Your task to perform on an android device: Search for Italian restaurants on Maps Image 0: 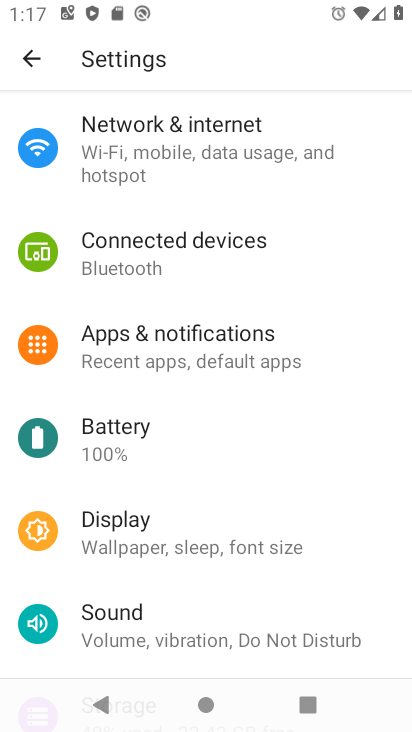
Step 0: press home button
Your task to perform on an android device: Search for Italian restaurants on Maps Image 1: 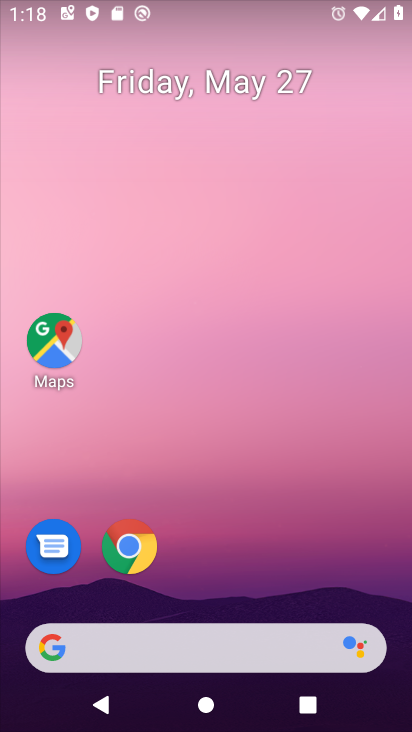
Step 1: drag from (325, 669) to (312, 183)
Your task to perform on an android device: Search for Italian restaurants on Maps Image 2: 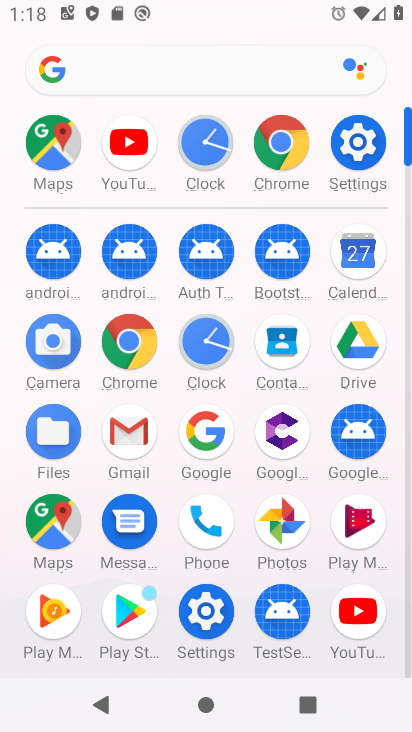
Step 2: click (72, 171)
Your task to perform on an android device: Search for Italian restaurants on Maps Image 3: 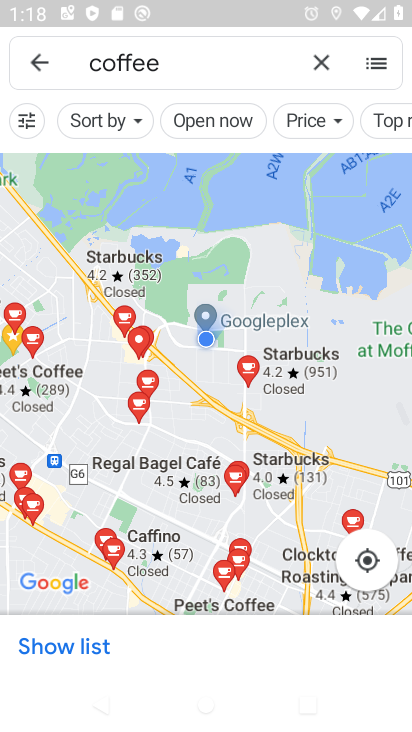
Step 3: click (323, 56)
Your task to perform on an android device: Search for Italian restaurants on Maps Image 4: 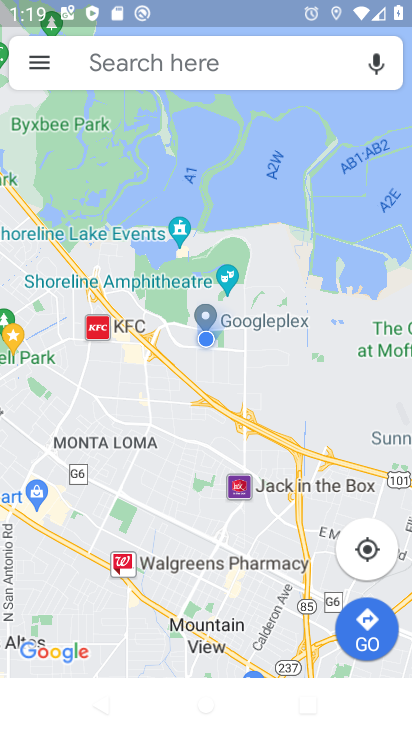
Step 4: click (212, 60)
Your task to perform on an android device: Search for Italian restaurants on Maps Image 5: 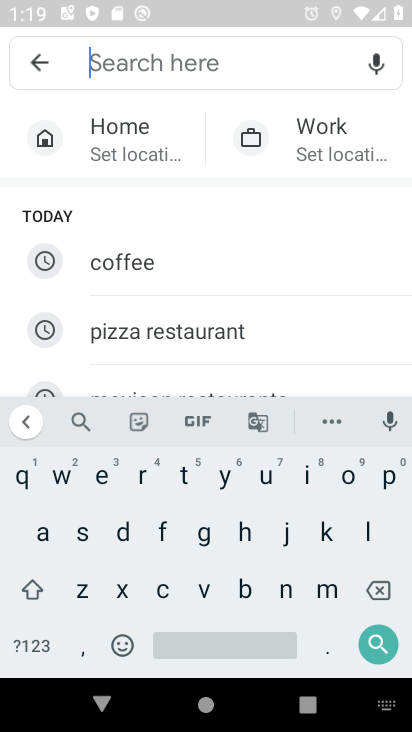
Step 5: click (305, 475)
Your task to perform on an android device: Search for Italian restaurants on Maps Image 6: 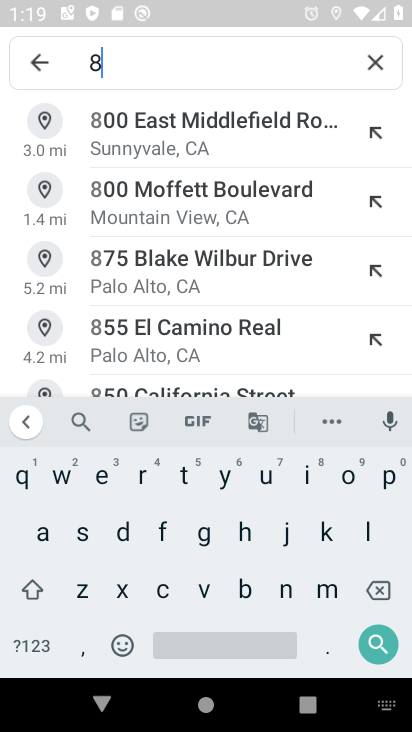
Step 6: click (383, 593)
Your task to perform on an android device: Search for Italian restaurants on Maps Image 7: 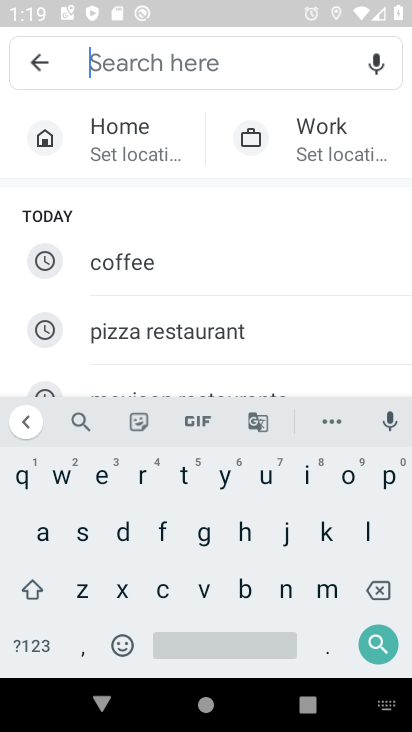
Step 7: click (311, 475)
Your task to perform on an android device: Search for Italian restaurants on Maps Image 8: 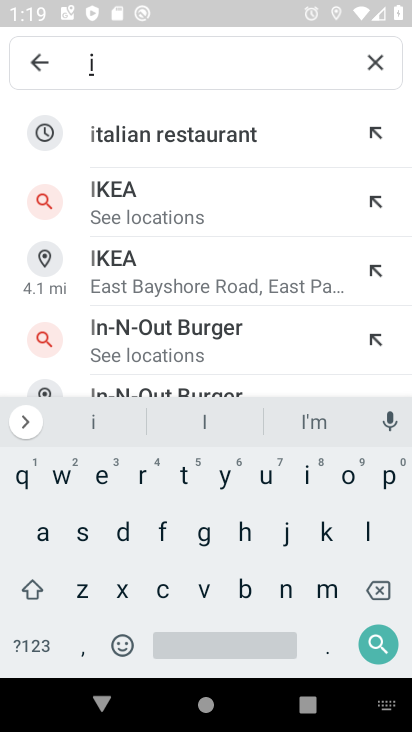
Step 8: click (192, 128)
Your task to perform on an android device: Search for Italian restaurants on Maps Image 9: 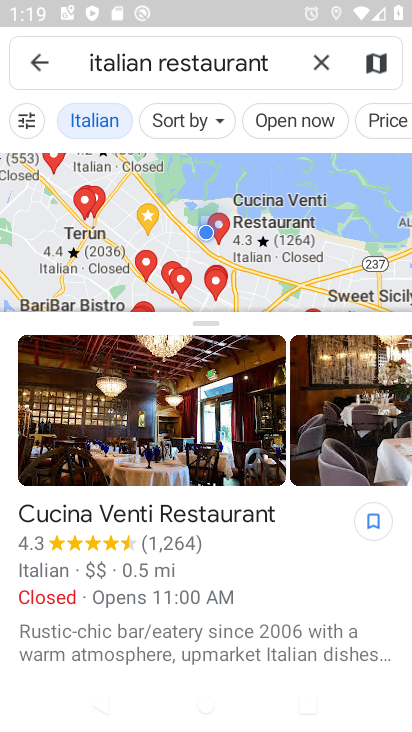
Step 9: task complete